Your task to perform on an android device: Open the web browser Image 0: 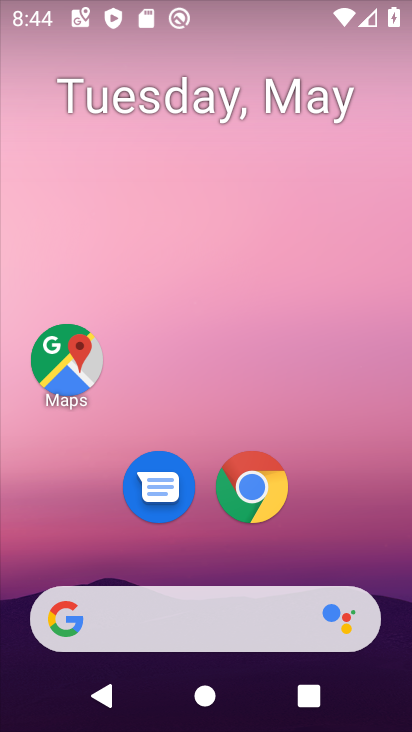
Step 0: drag from (349, 535) to (369, 223)
Your task to perform on an android device: Open the web browser Image 1: 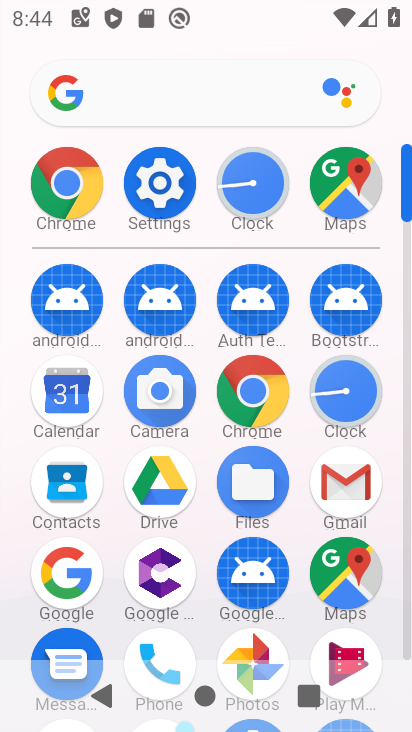
Step 1: click (264, 397)
Your task to perform on an android device: Open the web browser Image 2: 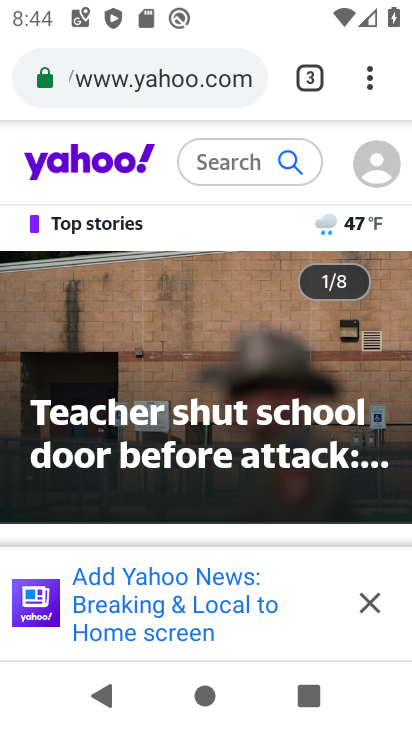
Step 2: task complete